Your task to perform on an android device: change text size in settings app Image 0: 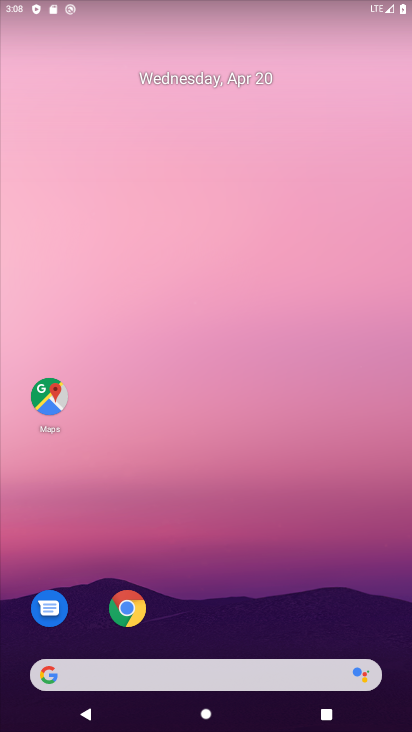
Step 0: drag from (231, 643) to (214, 146)
Your task to perform on an android device: change text size in settings app Image 1: 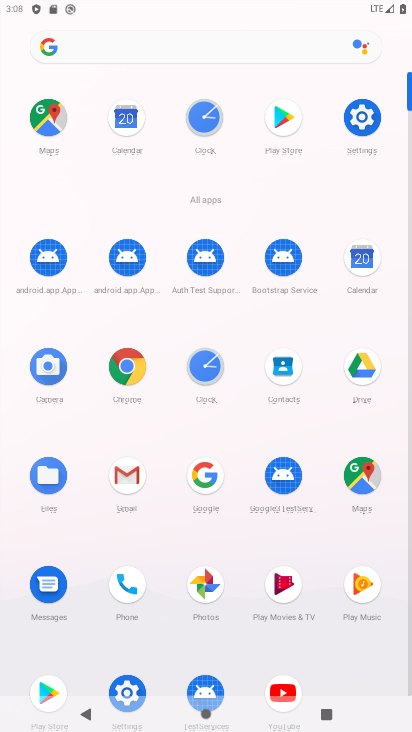
Step 1: click (359, 120)
Your task to perform on an android device: change text size in settings app Image 2: 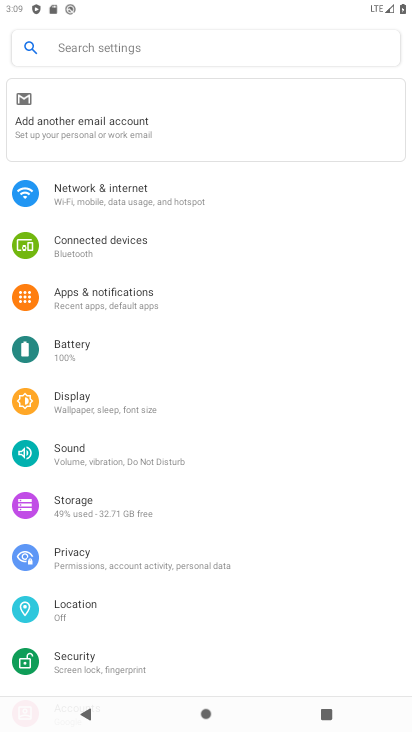
Step 2: drag from (212, 572) to (191, 275)
Your task to perform on an android device: change text size in settings app Image 3: 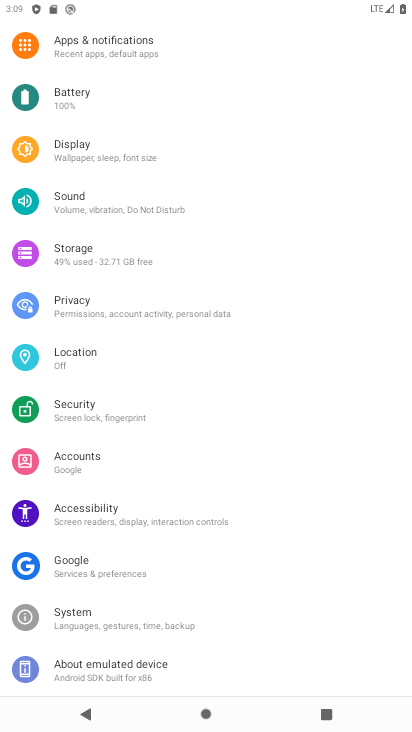
Step 3: click (74, 141)
Your task to perform on an android device: change text size in settings app Image 4: 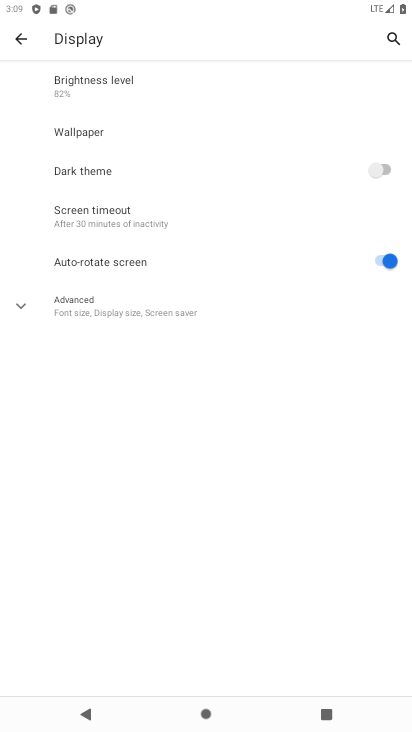
Step 4: click (108, 297)
Your task to perform on an android device: change text size in settings app Image 5: 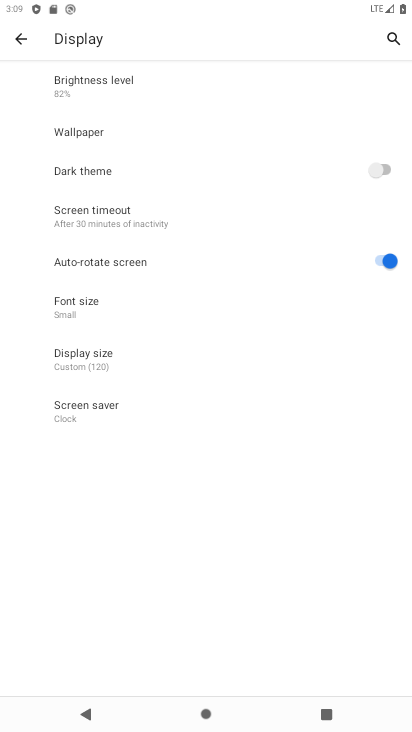
Step 5: click (105, 313)
Your task to perform on an android device: change text size in settings app Image 6: 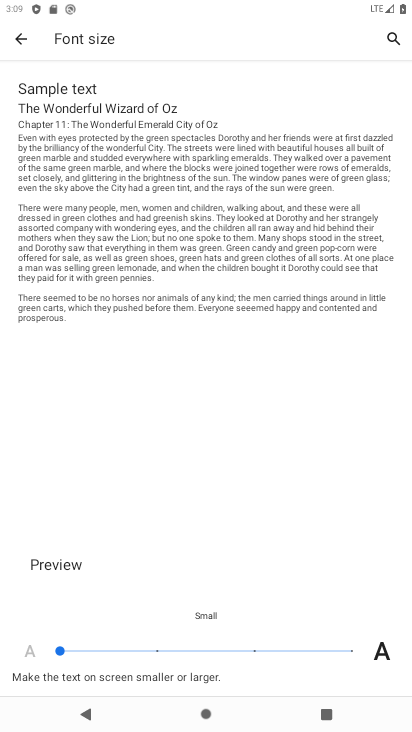
Step 6: click (346, 647)
Your task to perform on an android device: change text size in settings app Image 7: 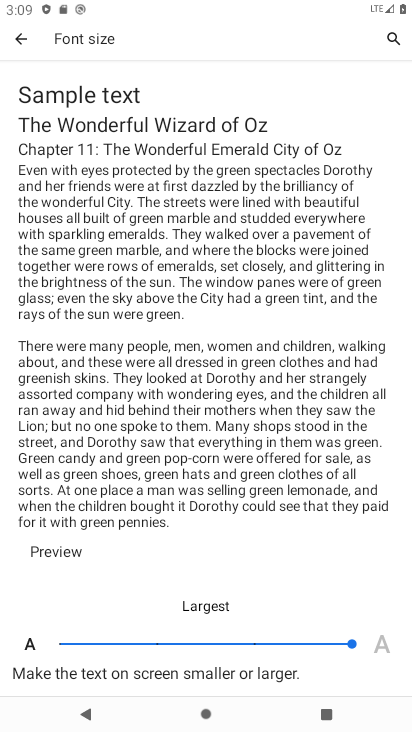
Step 7: task complete